Your task to perform on an android device: open chrome privacy settings Image 0: 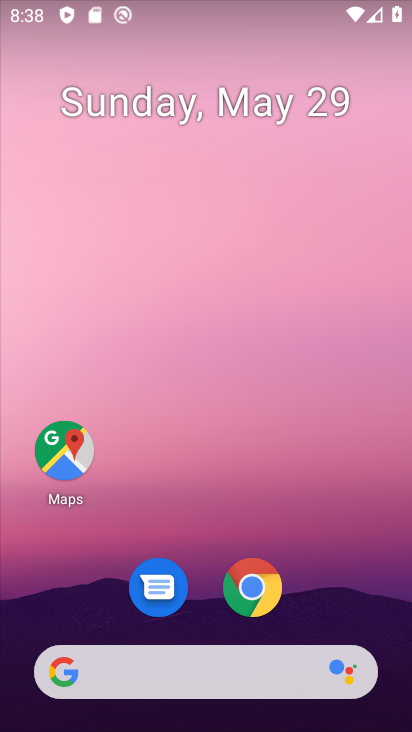
Step 0: click (251, 580)
Your task to perform on an android device: open chrome privacy settings Image 1: 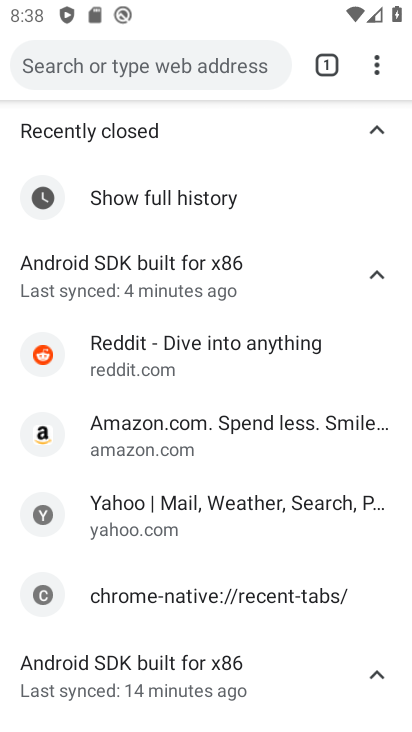
Step 1: drag from (376, 61) to (190, 540)
Your task to perform on an android device: open chrome privacy settings Image 2: 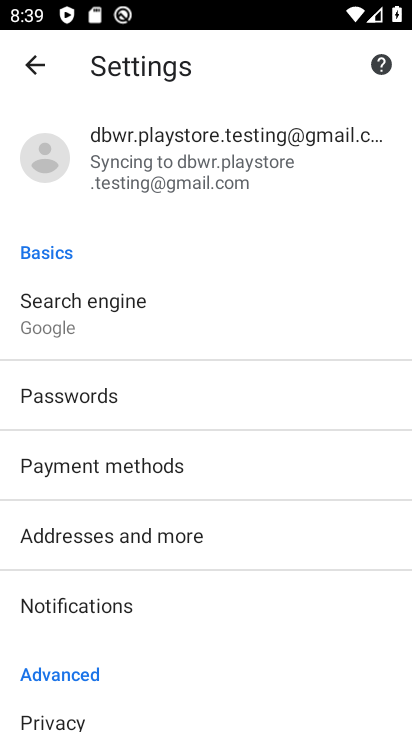
Step 2: click (62, 720)
Your task to perform on an android device: open chrome privacy settings Image 3: 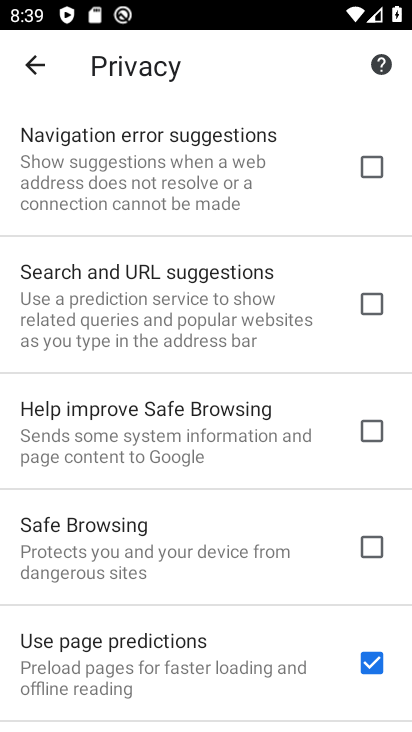
Step 3: task complete